Your task to perform on an android device: Go to eBay Image 0: 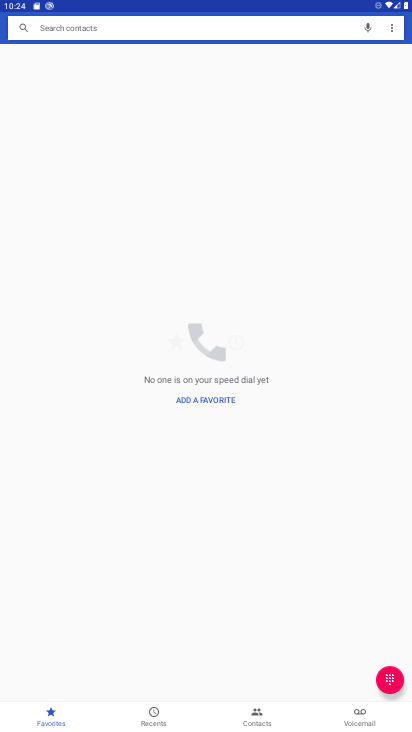
Step 0: drag from (209, 349) to (208, 61)
Your task to perform on an android device: Go to eBay Image 1: 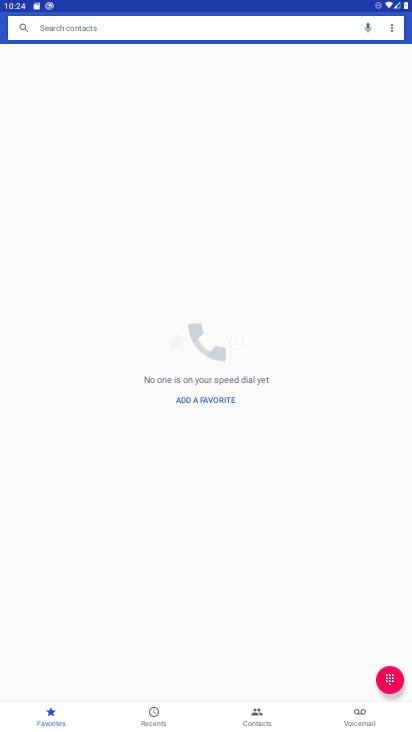
Step 1: press home button
Your task to perform on an android device: Go to eBay Image 2: 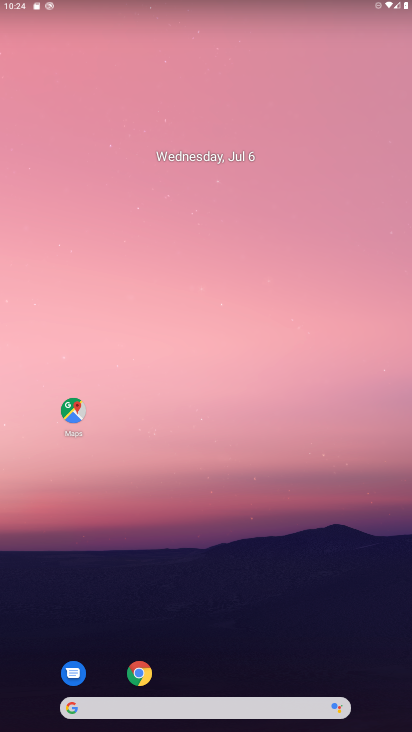
Step 2: click (140, 674)
Your task to perform on an android device: Go to eBay Image 3: 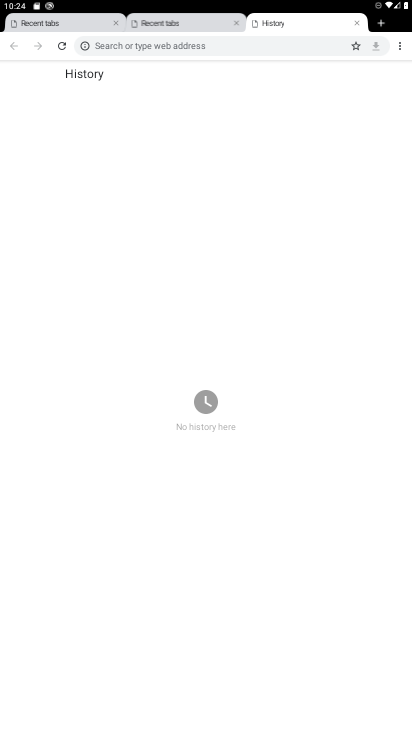
Step 3: click (359, 24)
Your task to perform on an android device: Go to eBay Image 4: 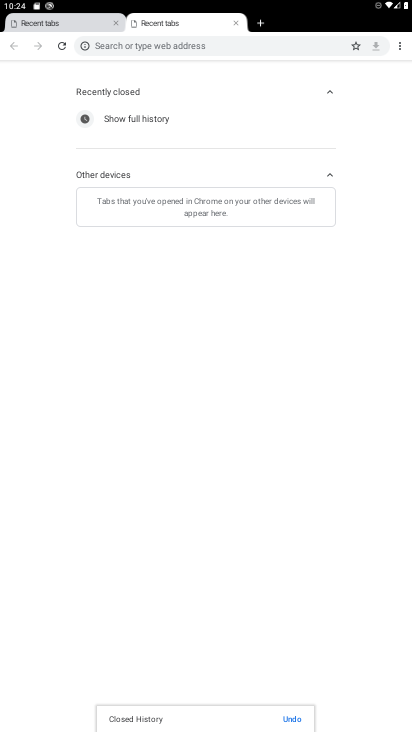
Step 4: click (237, 23)
Your task to perform on an android device: Go to eBay Image 5: 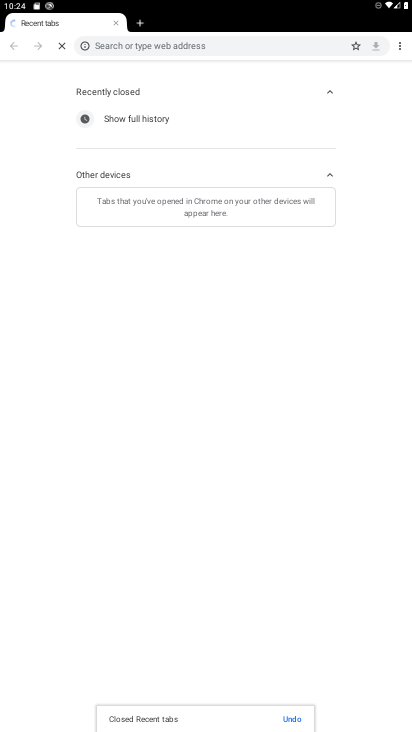
Step 5: click (60, 25)
Your task to perform on an android device: Go to eBay Image 6: 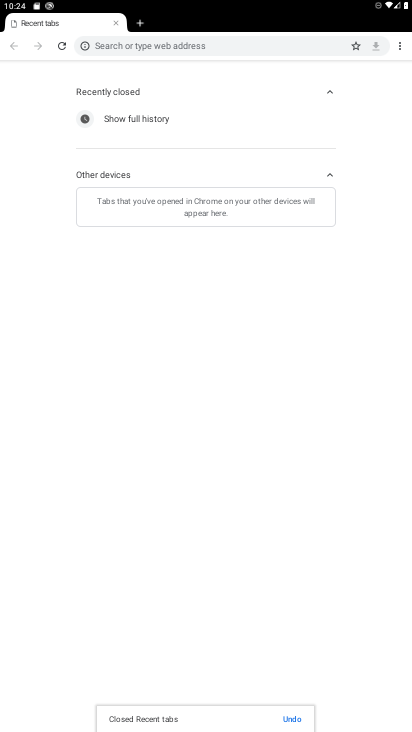
Step 6: click (401, 43)
Your task to perform on an android device: Go to eBay Image 7: 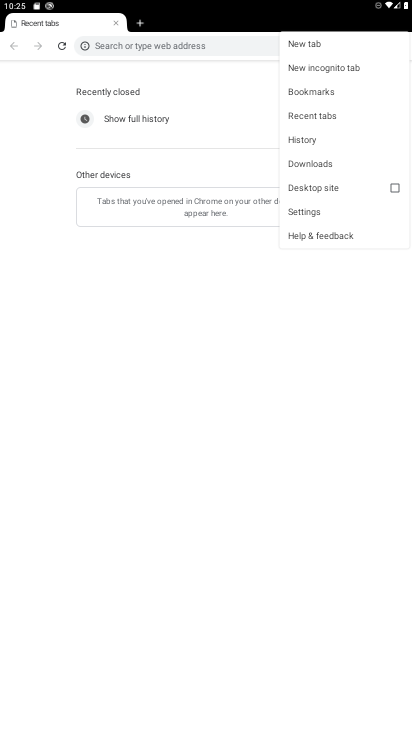
Step 7: click (322, 52)
Your task to perform on an android device: Go to eBay Image 8: 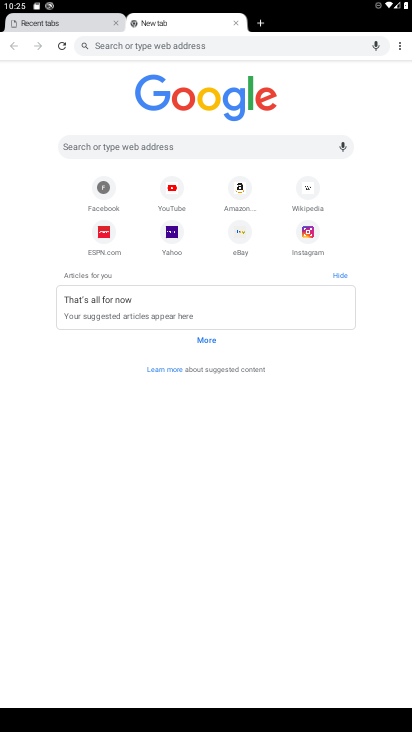
Step 8: click (245, 244)
Your task to perform on an android device: Go to eBay Image 9: 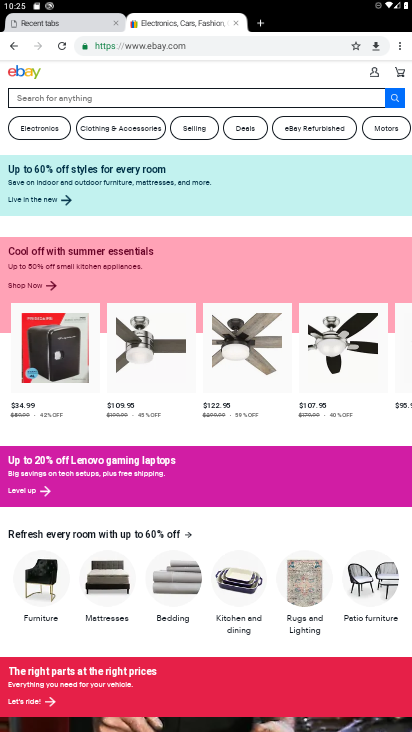
Step 9: task complete